Your task to perform on an android device: toggle javascript in the chrome app Image 0: 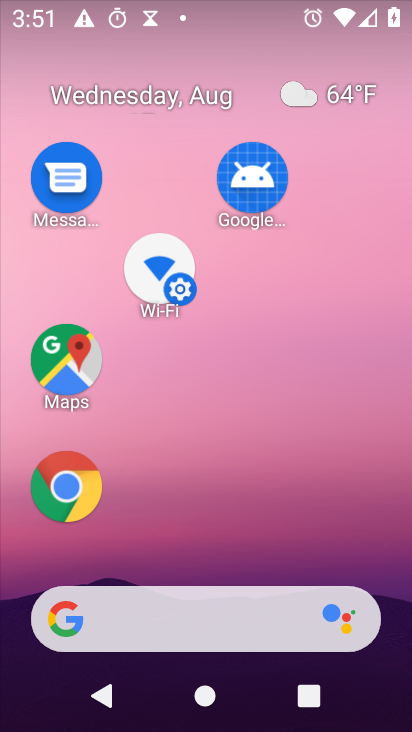
Step 0: press home button
Your task to perform on an android device: toggle javascript in the chrome app Image 1: 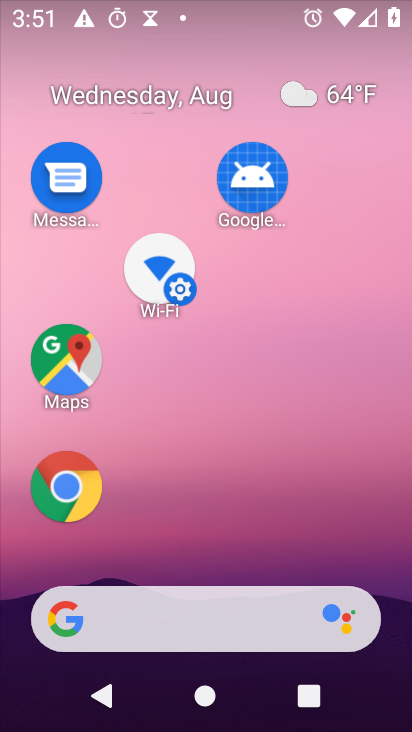
Step 1: click (68, 480)
Your task to perform on an android device: toggle javascript in the chrome app Image 2: 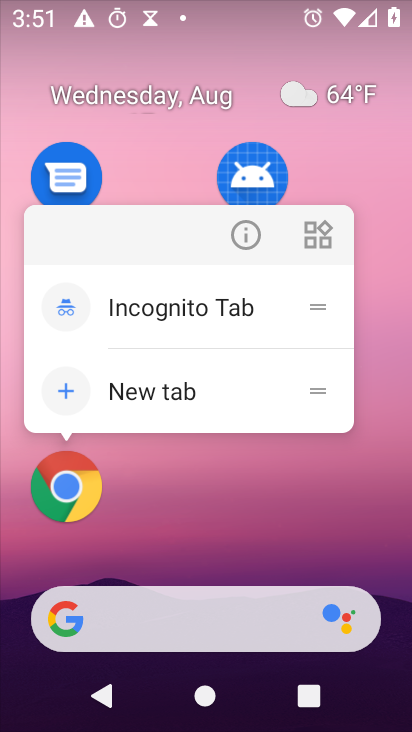
Step 2: click (69, 474)
Your task to perform on an android device: toggle javascript in the chrome app Image 3: 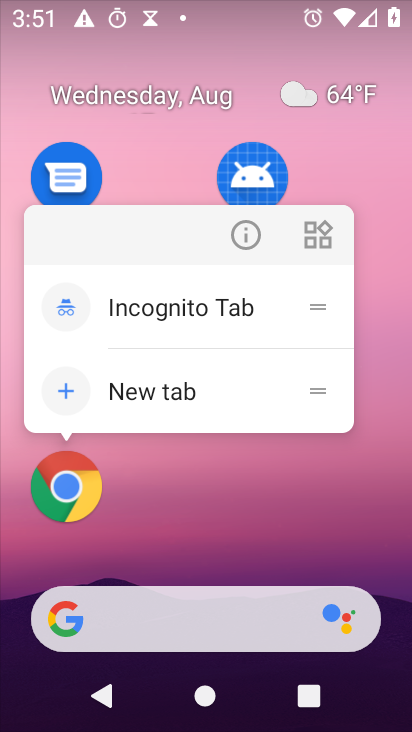
Step 3: click (65, 491)
Your task to perform on an android device: toggle javascript in the chrome app Image 4: 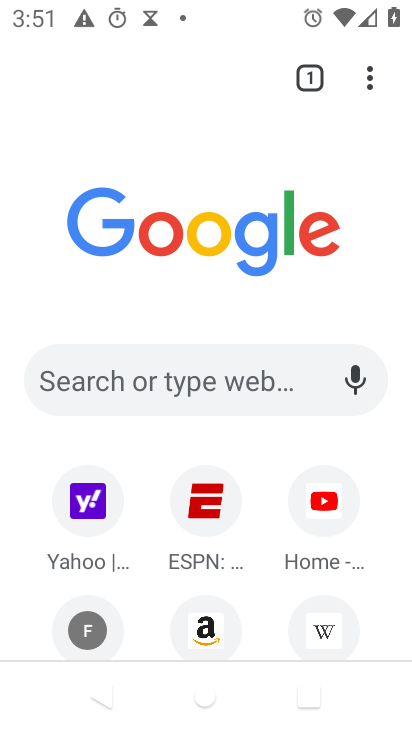
Step 4: drag from (370, 77) to (75, 657)
Your task to perform on an android device: toggle javascript in the chrome app Image 5: 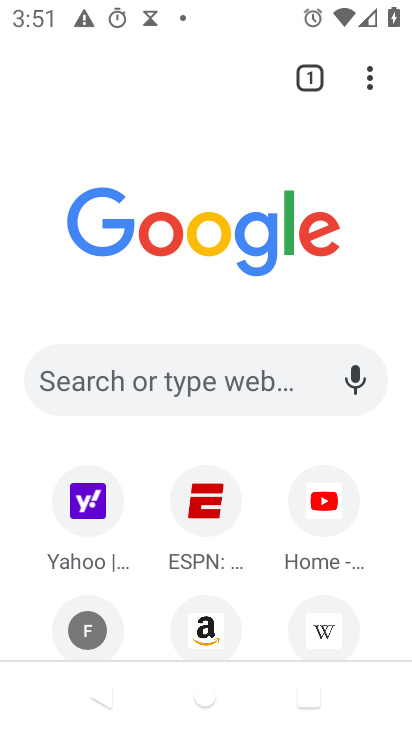
Step 5: drag from (365, 75) to (65, 644)
Your task to perform on an android device: toggle javascript in the chrome app Image 6: 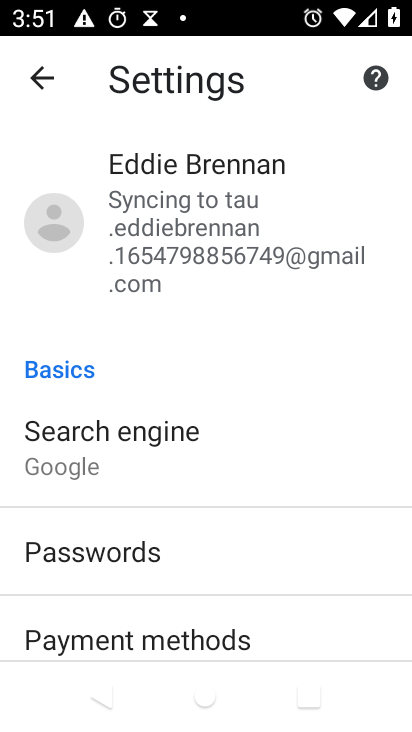
Step 6: drag from (258, 626) to (87, 32)
Your task to perform on an android device: toggle javascript in the chrome app Image 7: 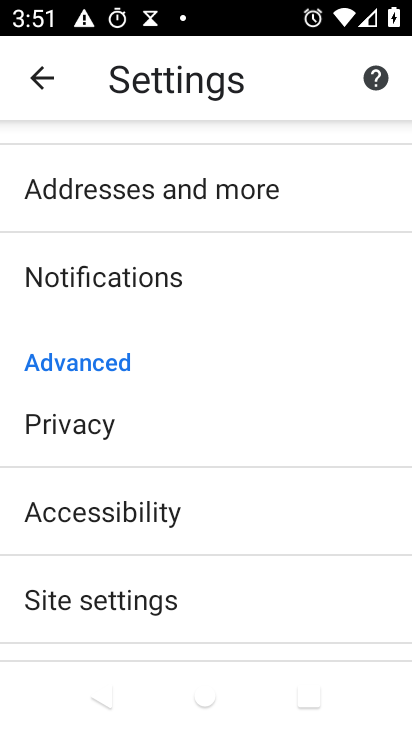
Step 7: click (87, 602)
Your task to perform on an android device: toggle javascript in the chrome app Image 8: 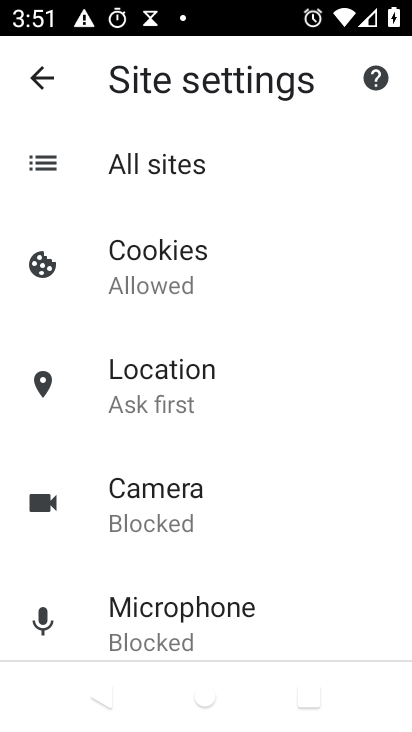
Step 8: drag from (284, 594) to (232, 199)
Your task to perform on an android device: toggle javascript in the chrome app Image 9: 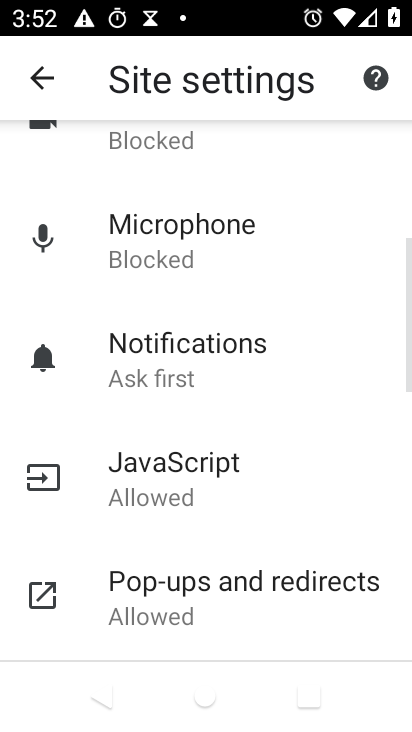
Step 9: click (186, 471)
Your task to perform on an android device: toggle javascript in the chrome app Image 10: 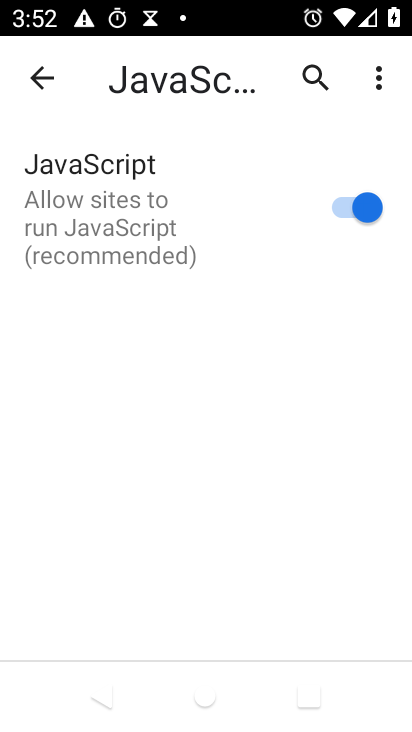
Step 10: click (352, 213)
Your task to perform on an android device: toggle javascript in the chrome app Image 11: 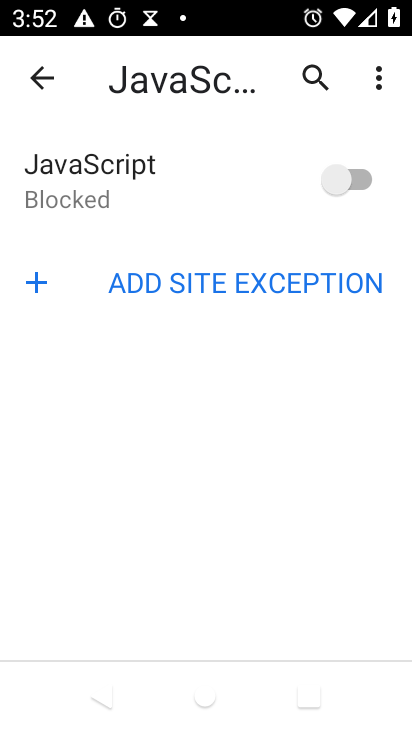
Step 11: task complete